Your task to perform on an android device: Go to Yahoo.com Image 0: 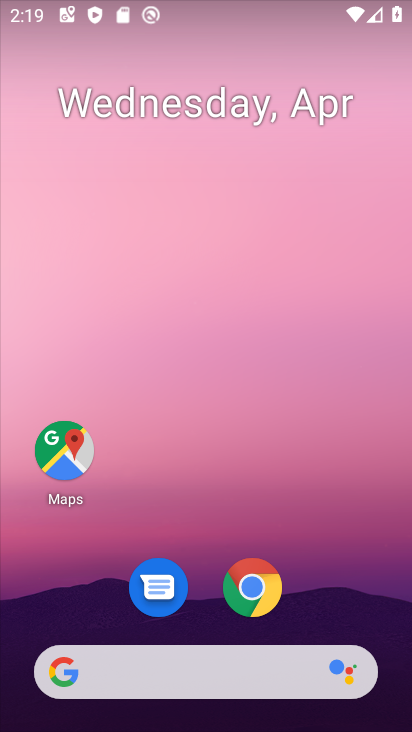
Step 0: click (205, 673)
Your task to perform on an android device: Go to Yahoo.com Image 1: 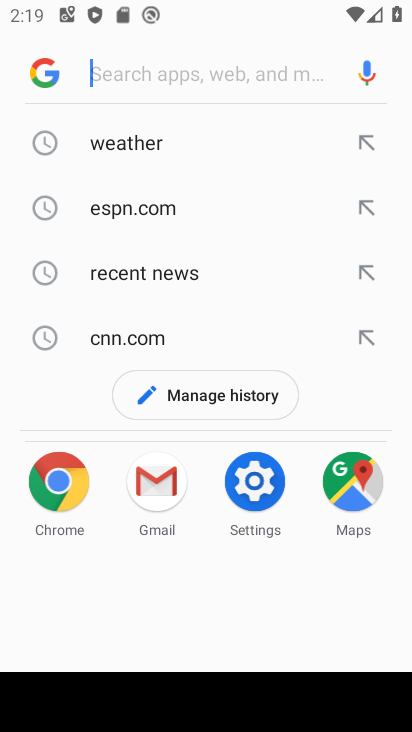
Step 1: click (166, 75)
Your task to perform on an android device: Go to Yahoo.com Image 2: 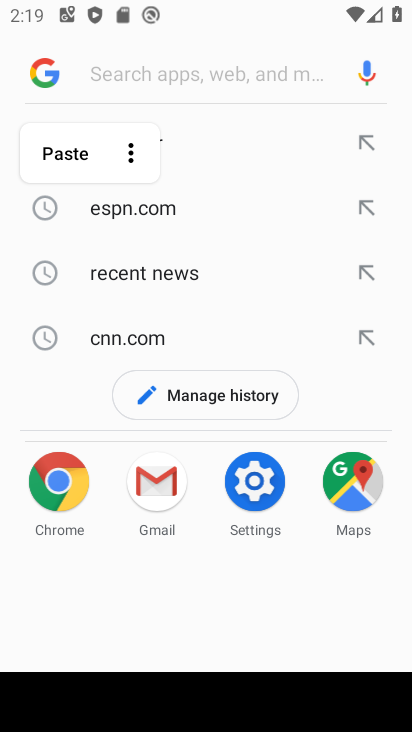
Step 2: type "yahoo,com"
Your task to perform on an android device: Go to Yahoo.com Image 3: 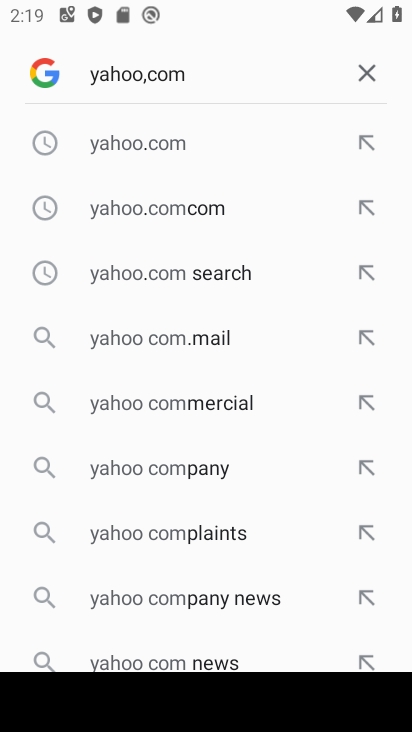
Step 3: click (161, 137)
Your task to perform on an android device: Go to Yahoo.com Image 4: 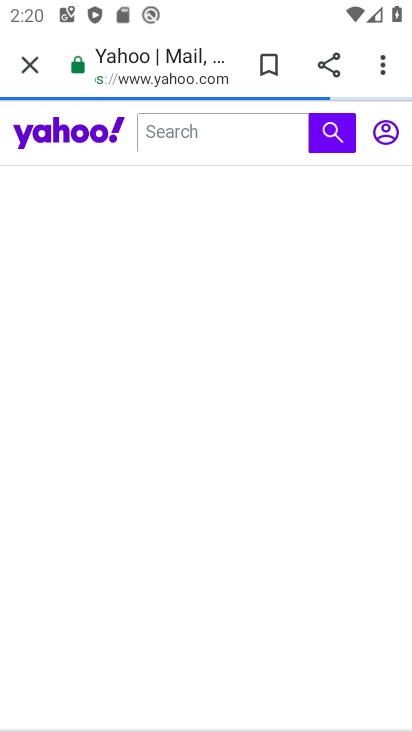
Step 4: task complete